Your task to perform on an android device: Go to sound settings Image 0: 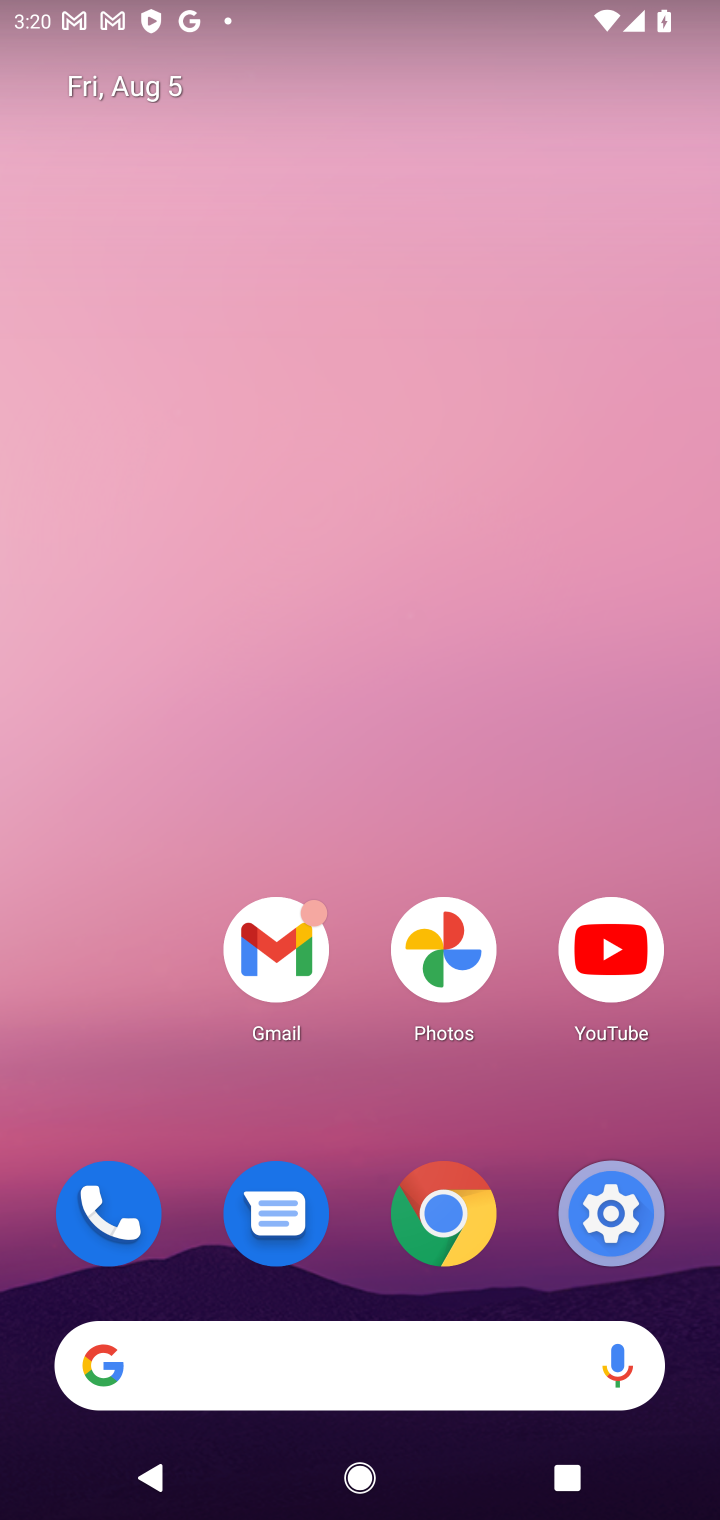
Step 0: click (619, 1206)
Your task to perform on an android device: Go to sound settings Image 1: 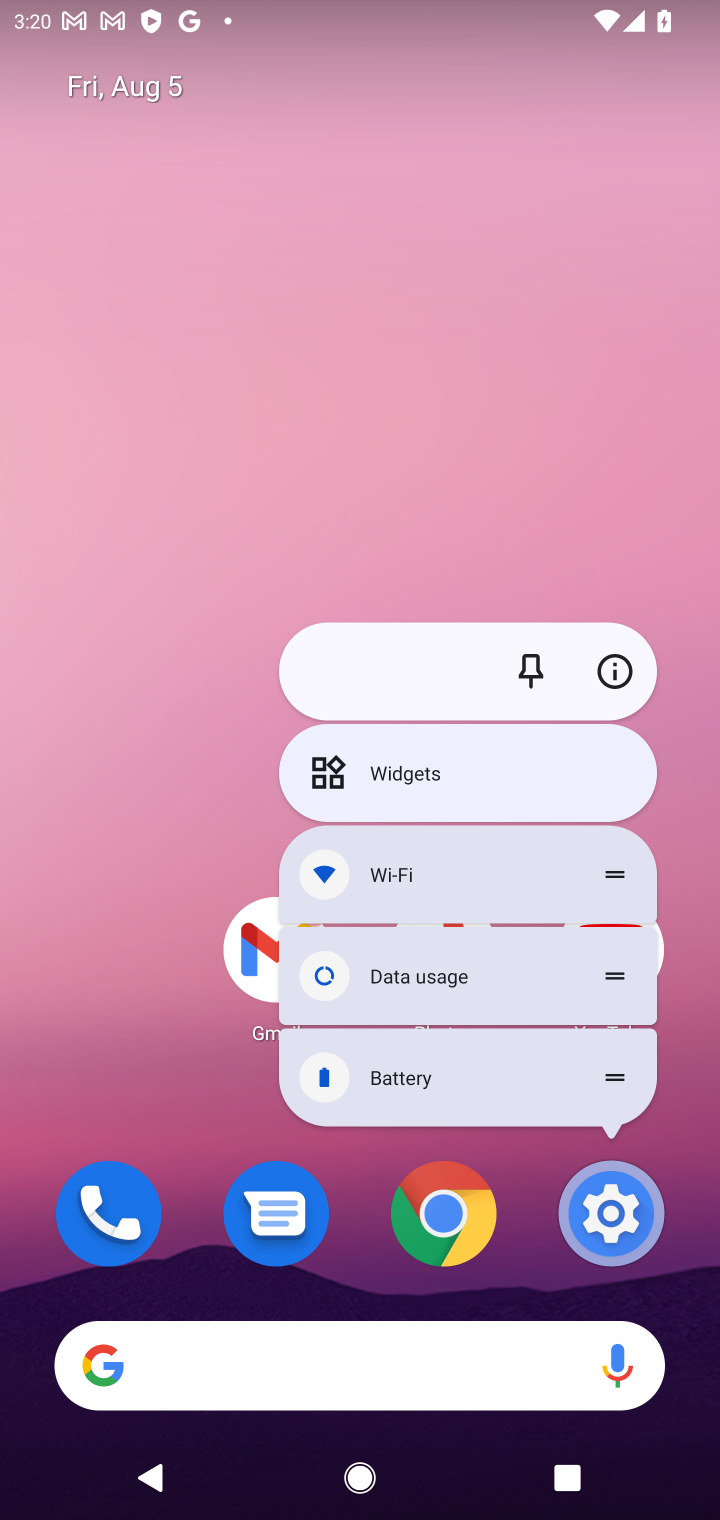
Step 1: click (619, 1206)
Your task to perform on an android device: Go to sound settings Image 2: 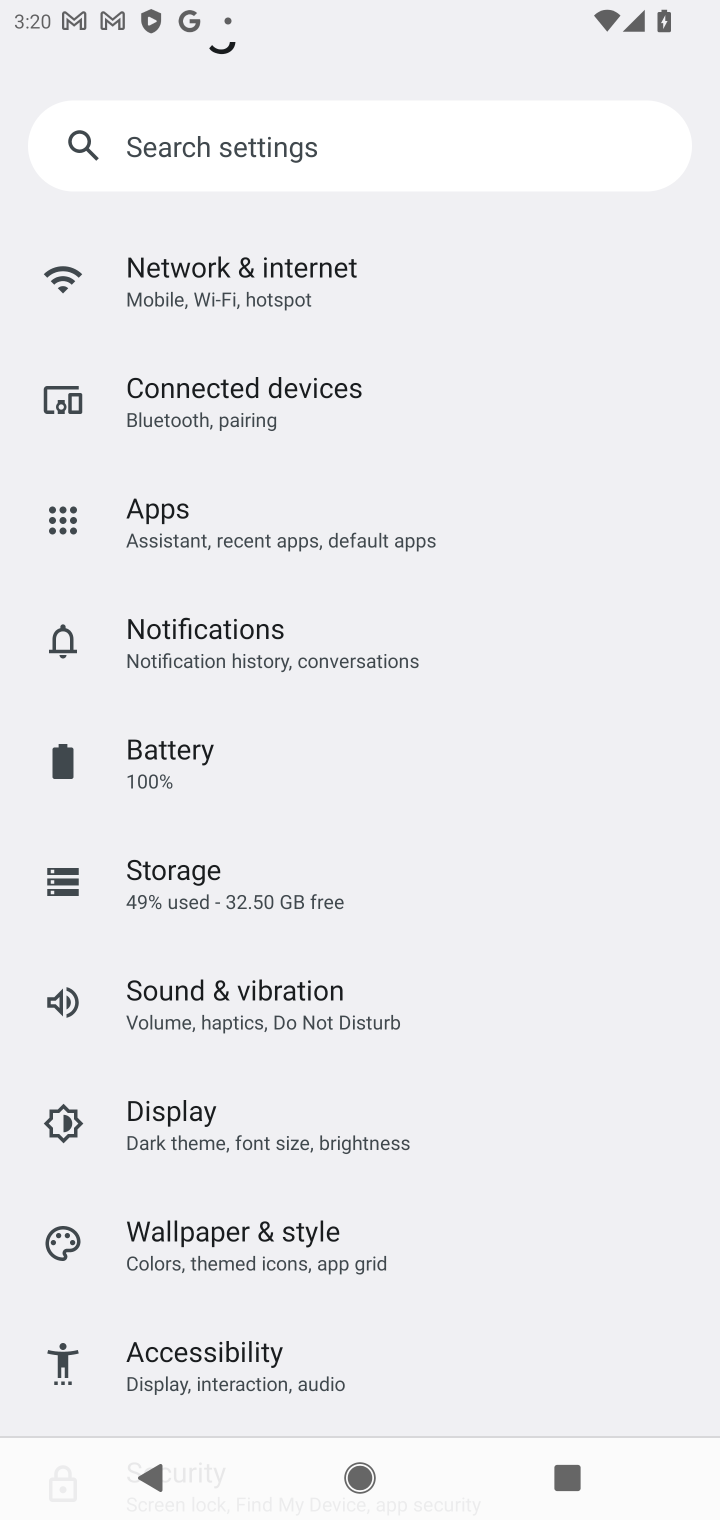
Step 2: click (355, 975)
Your task to perform on an android device: Go to sound settings Image 3: 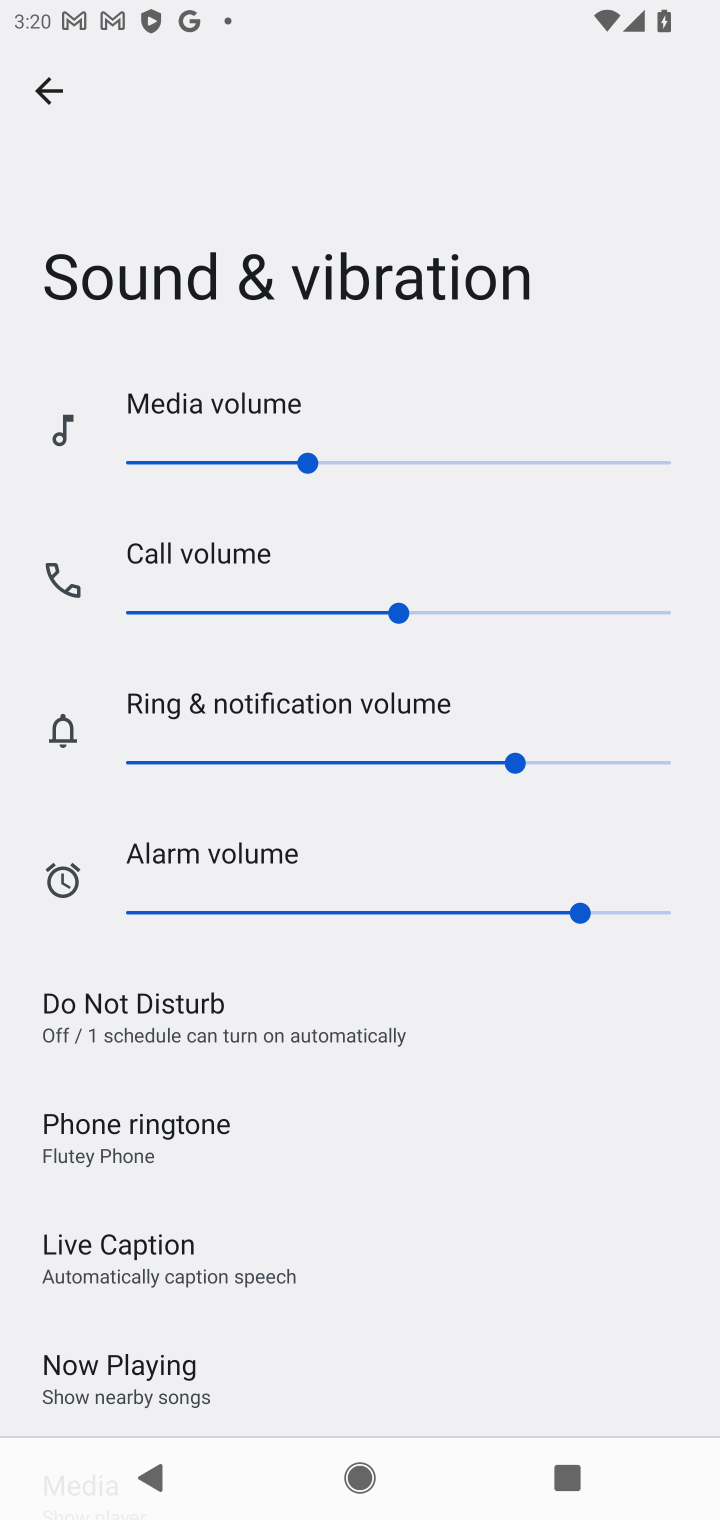
Step 3: task complete